Your task to perform on an android device: open app "VLC for Android" (install if not already installed) Image 0: 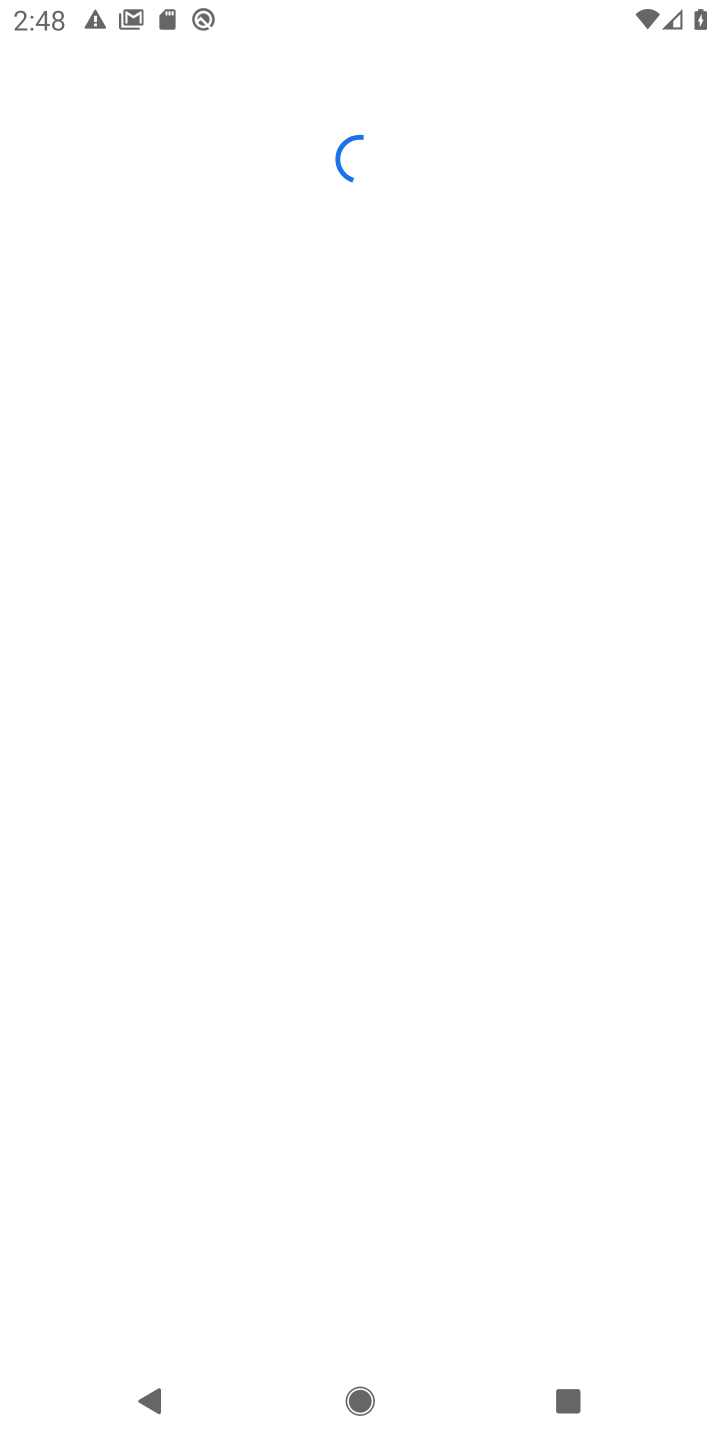
Step 0: press home button
Your task to perform on an android device: open app "VLC for Android" (install if not already installed) Image 1: 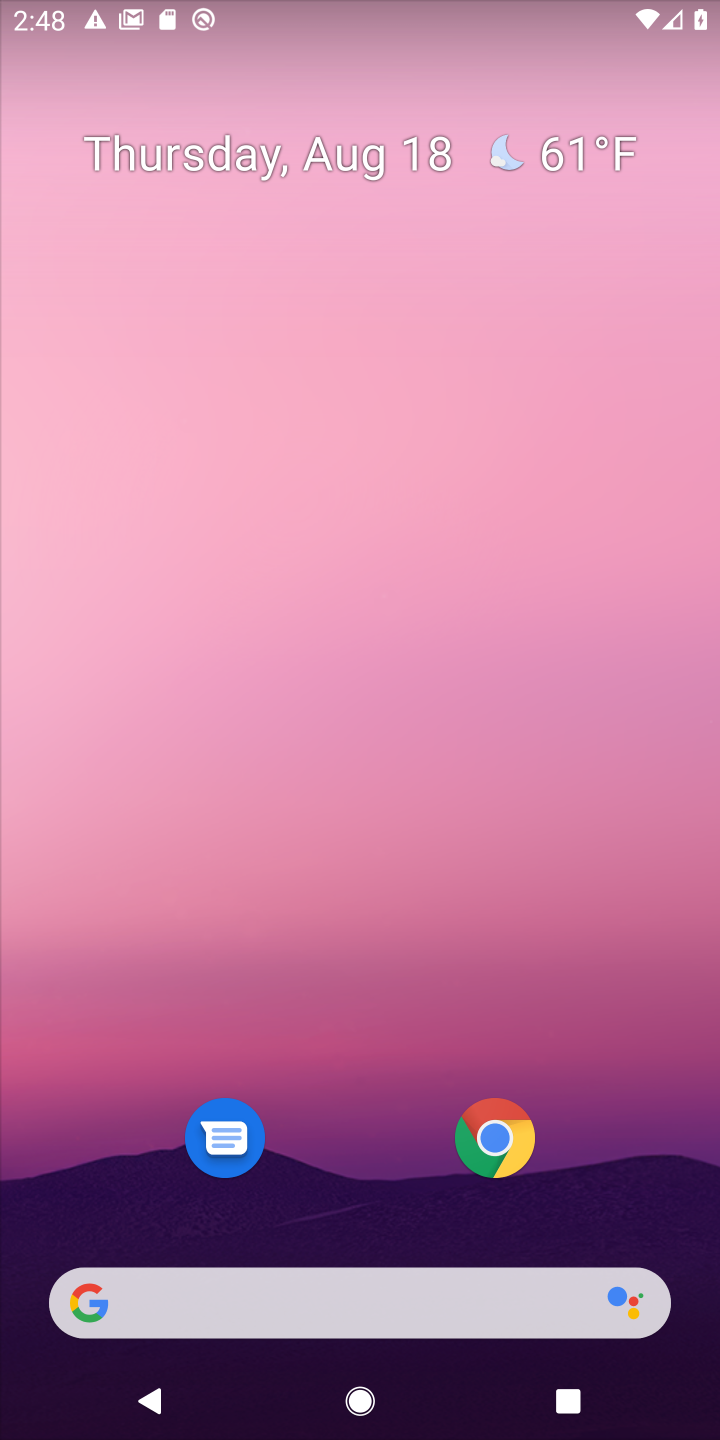
Step 1: drag from (357, 803) to (491, 11)
Your task to perform on an android device: open app "VLC for Android" (install if not already installed) Image 2: 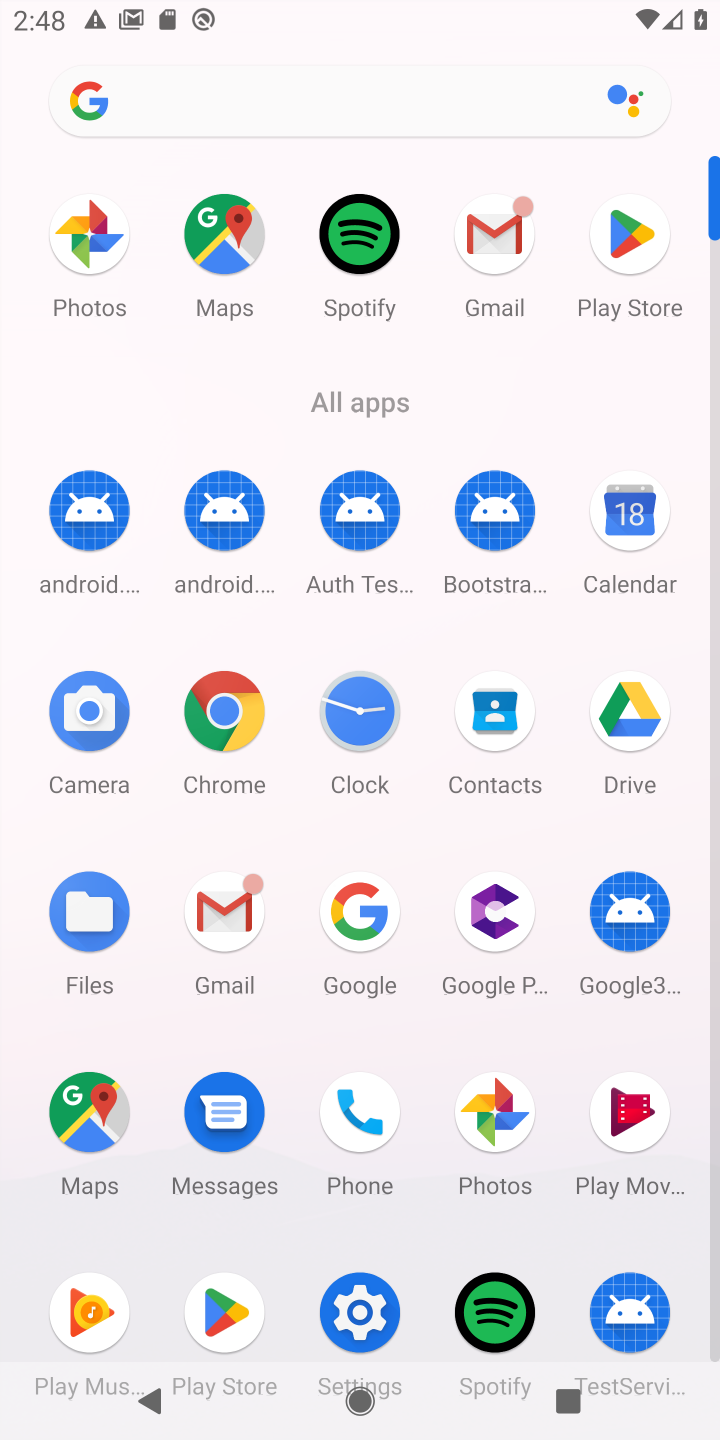
Step 2: click (624, 259)
Your task to perform on an android device: open app "VLC for Android" (install if not already installed) Image 3: 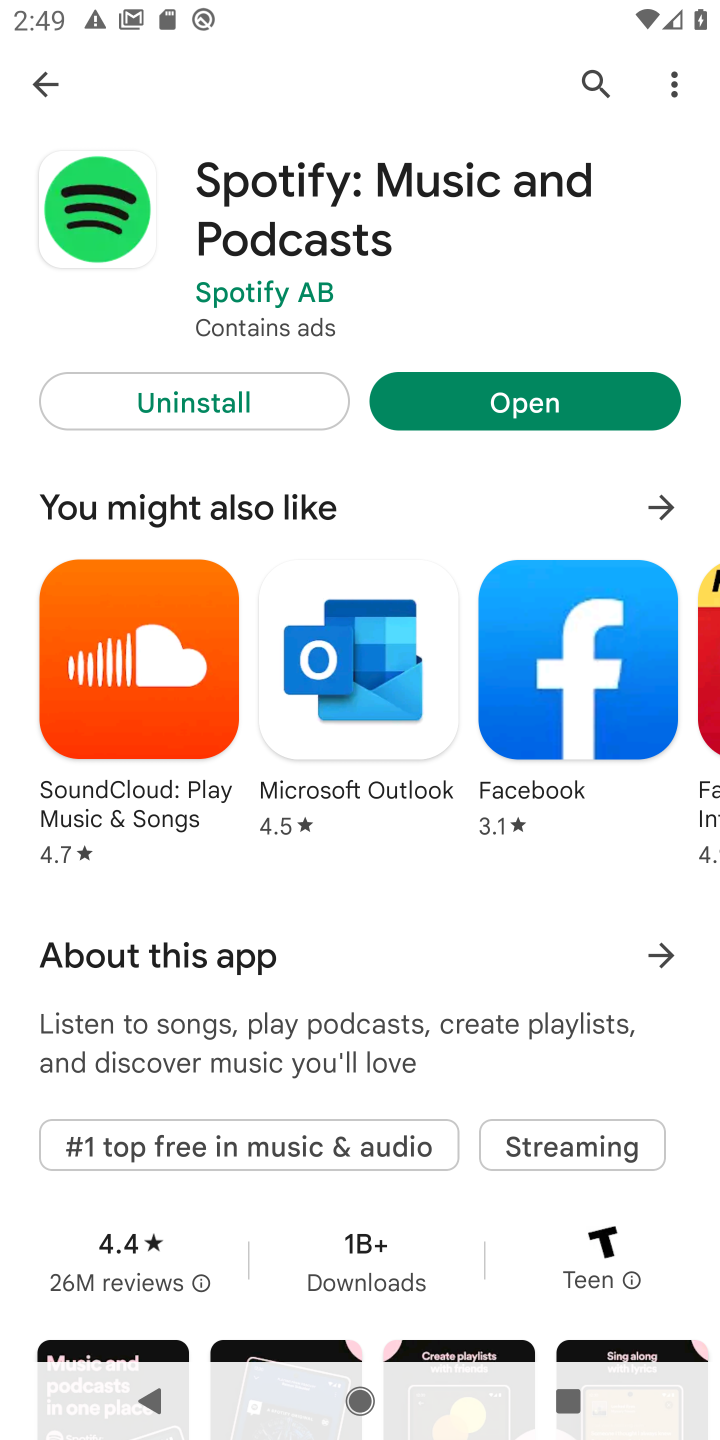
Step 3: click (55, 65)
Your task to perform on an android device: open app "VLC for Android" (install if not already installed) Image 4: 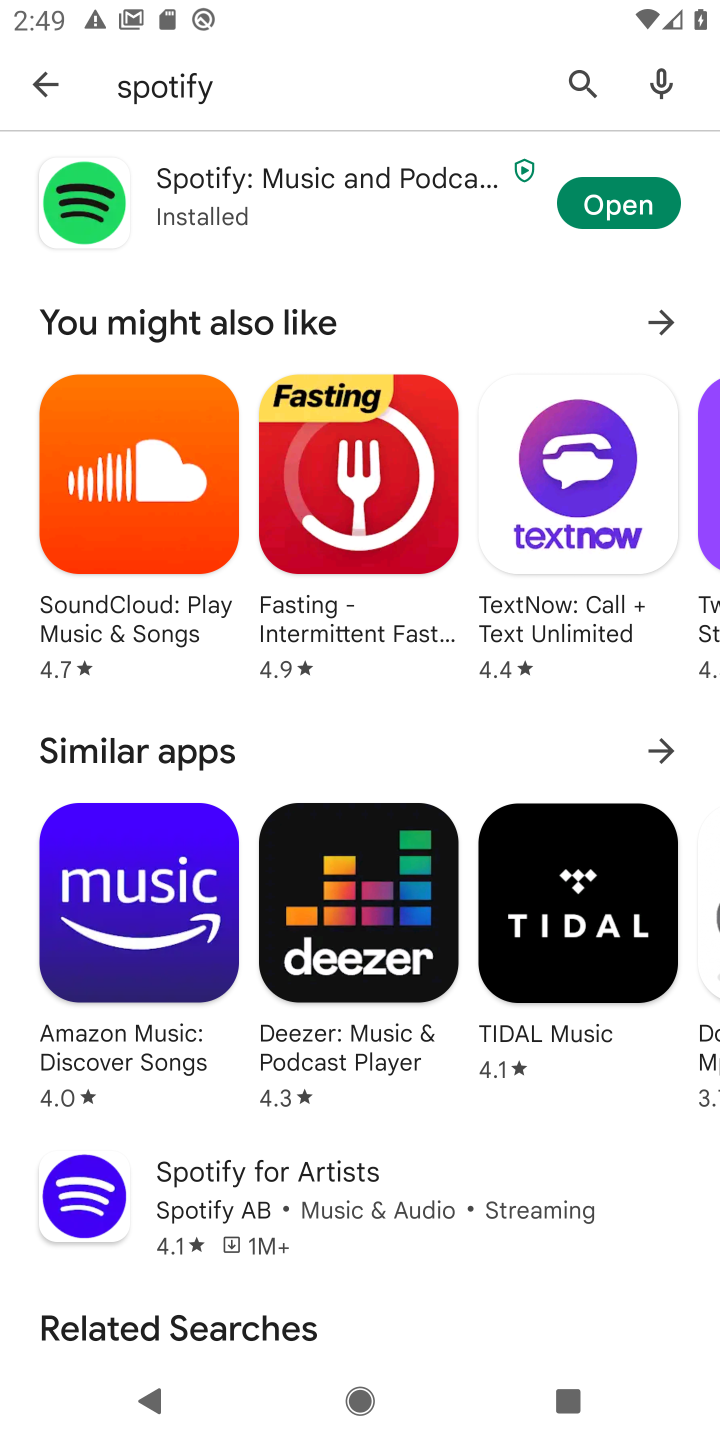
Step 4: click (278, 91)
Your task to perform on an android device: open app "VLC for Android" (install if not already installed) Image 5: 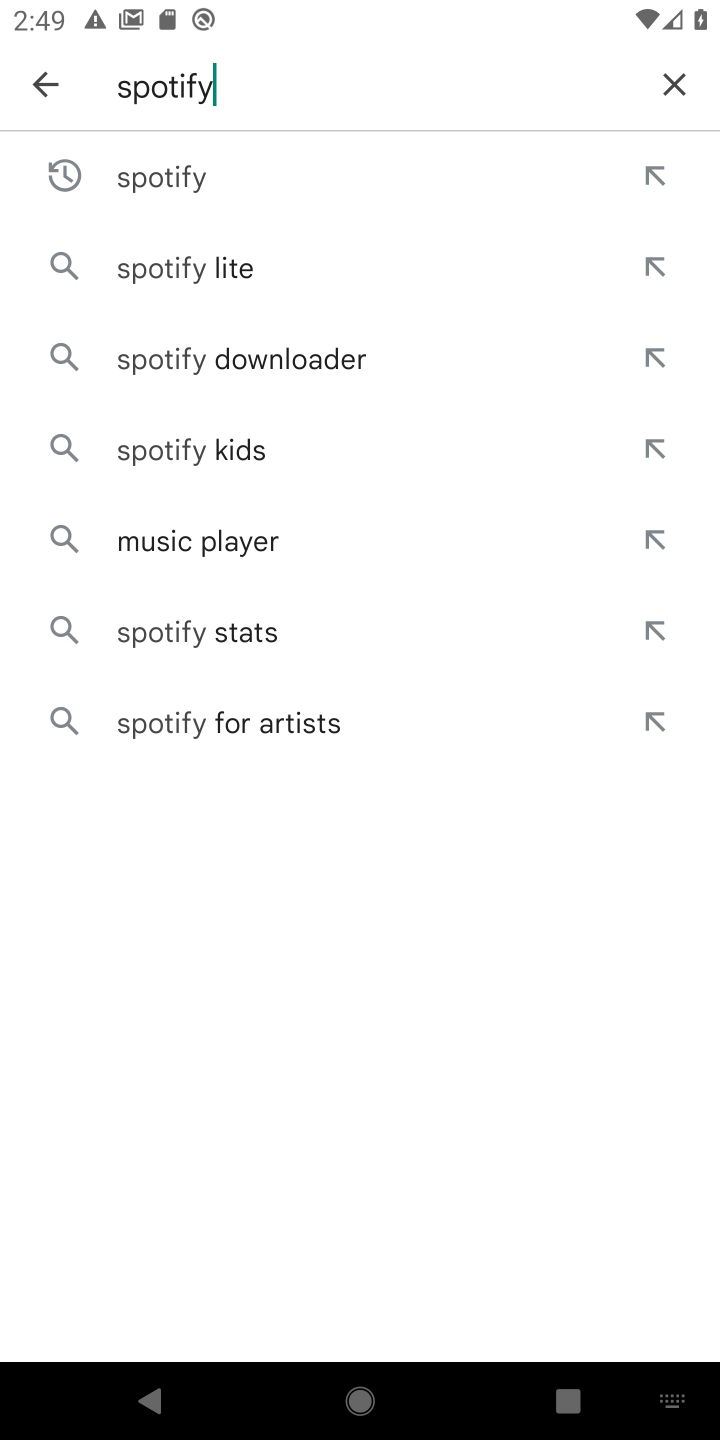
Step 5: click (660, 65)
Your task to perform on an android device: open app "VLC for Android" (install if not already installed) Image 6: 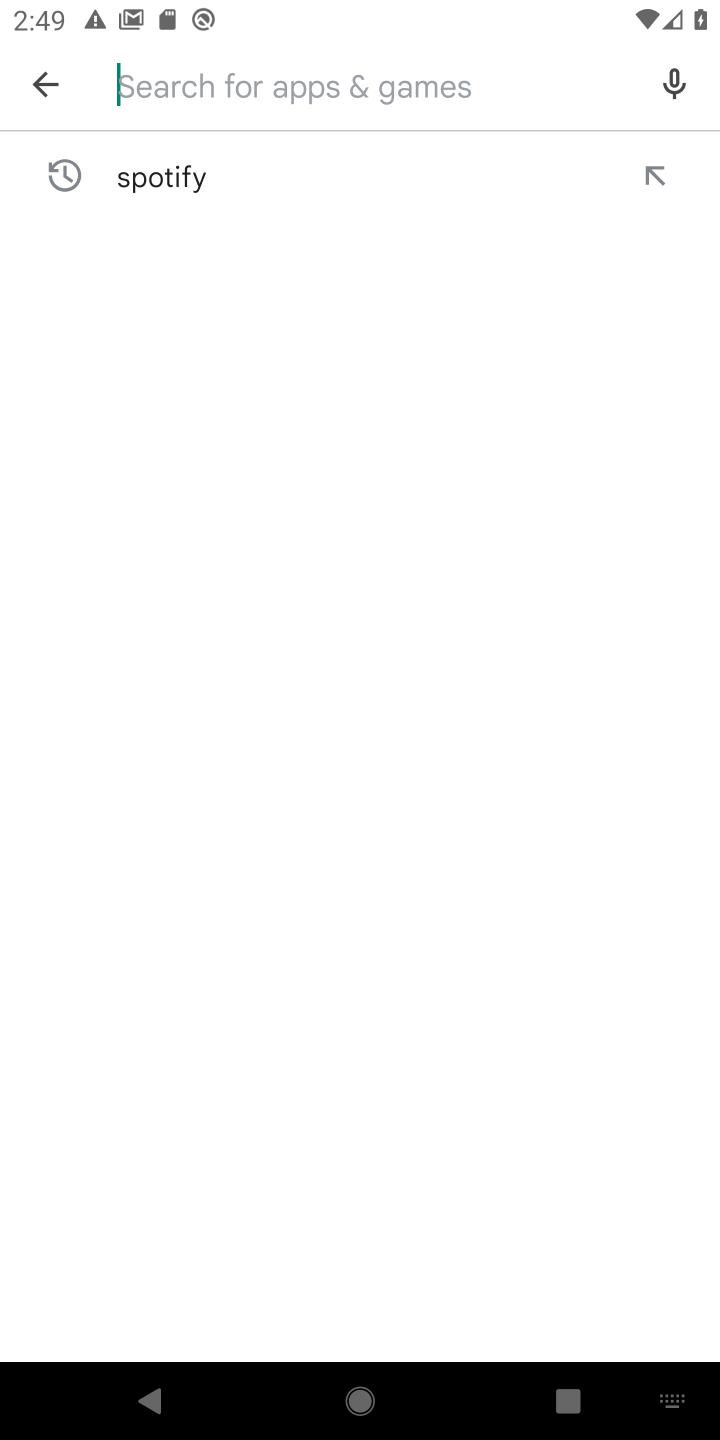
Step 6: type "Vlc"
Your task to perform on an android device: open app "VLC for Android" (install if not already installed) Image 7: 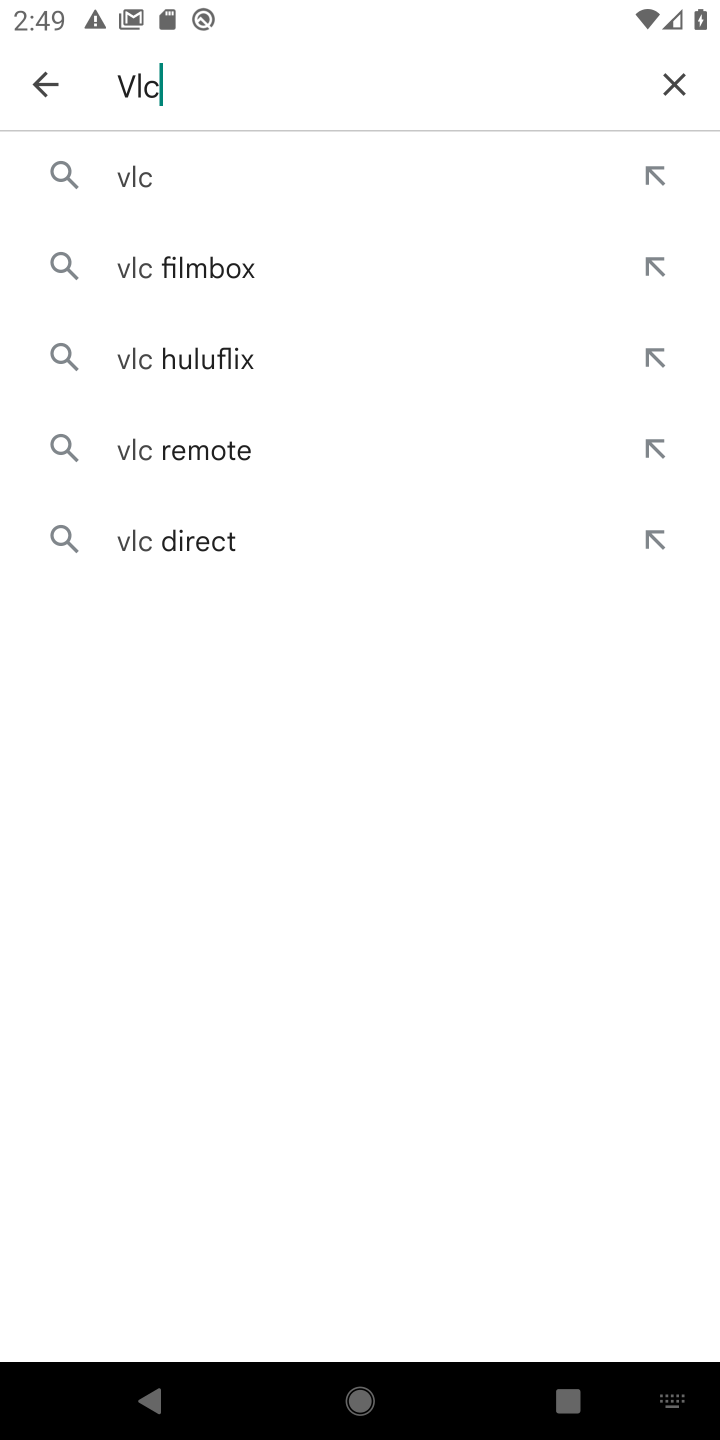
Step 7: click (171, 179)
Your task to perform on an android device: open app "VLC for Android" (install if not already installed) Image 8: 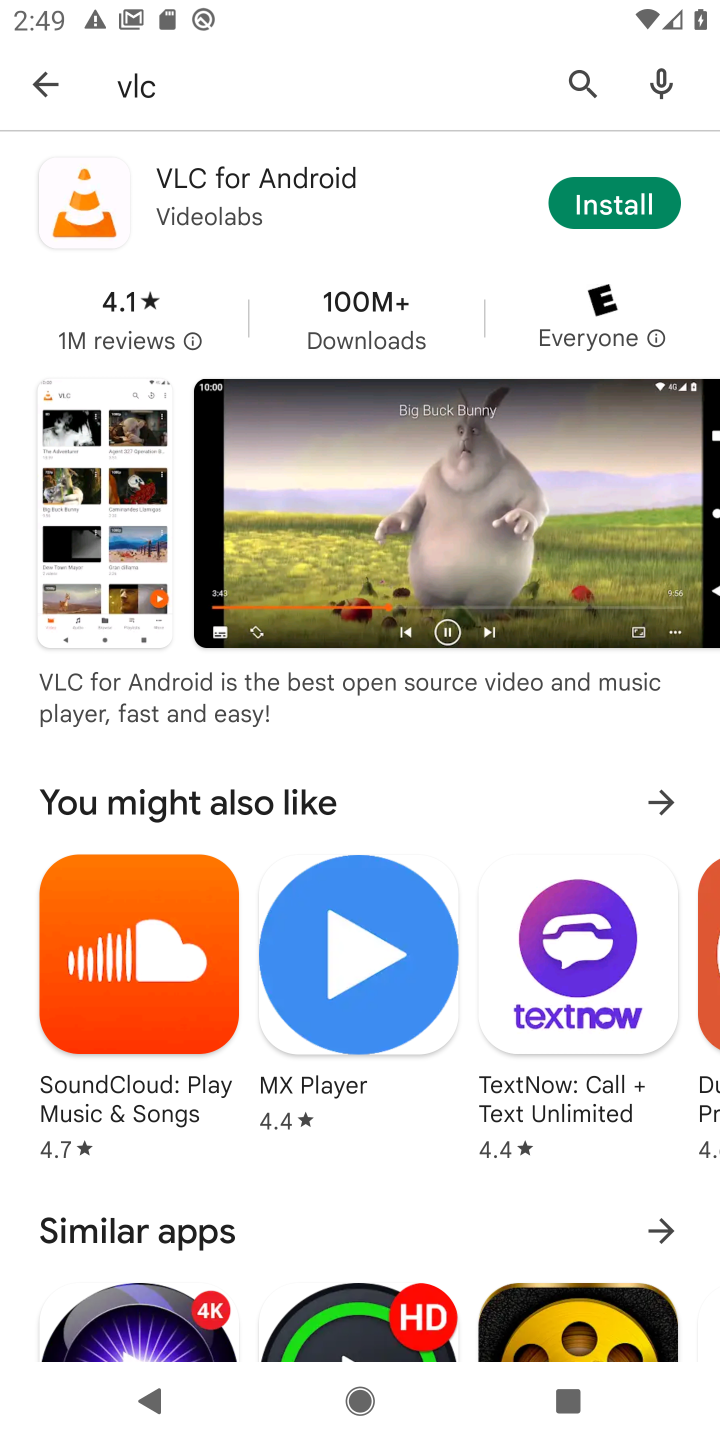
Step 8: click (595, 206)
Your task to perform on an android device: open app "VLC for Android" (install if not already installed) Image 9: 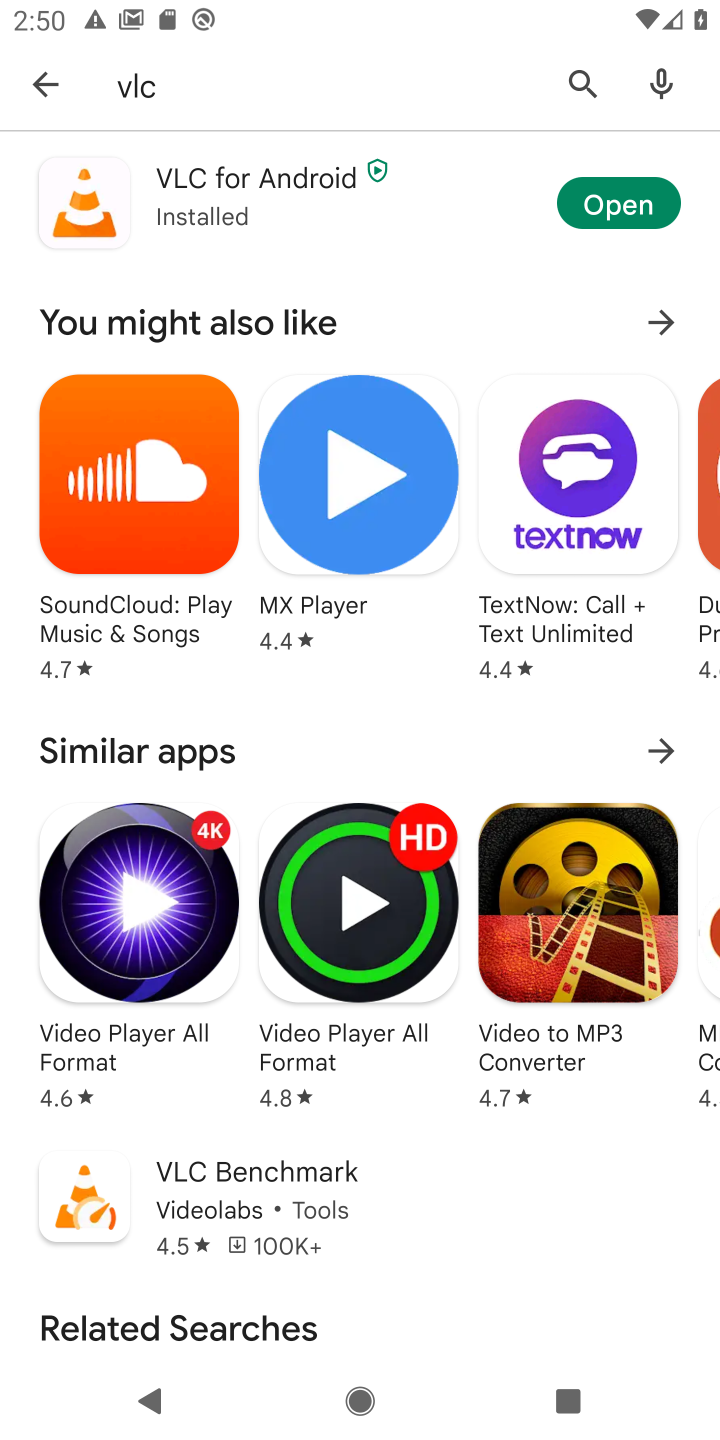
Step 9: click (597, 204)
Your task to perform on an android device: open app "VLC for Android" (install if not already installed) Image 10: 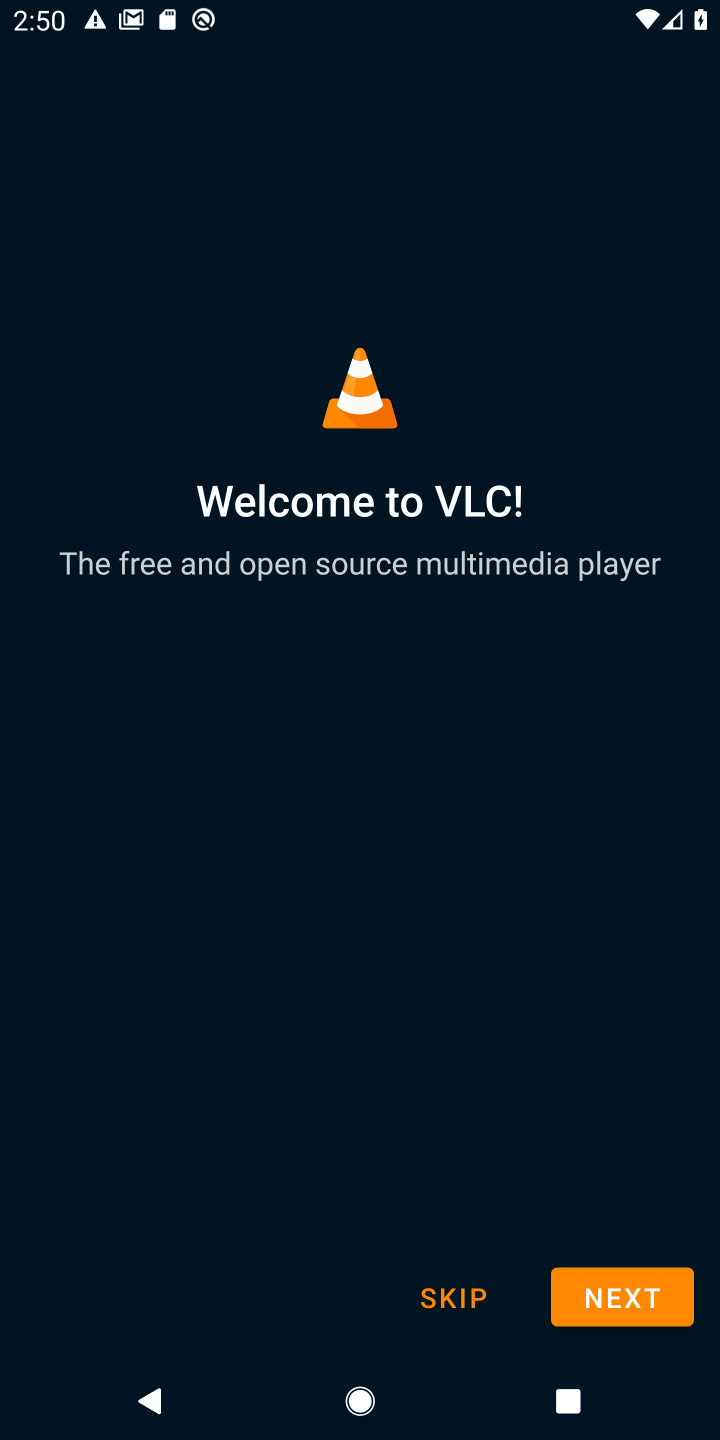
Step 10: click (461, 1286)
Your task to perform on an android device: open app "VLC for Android" (install if not already installed) Image 11: 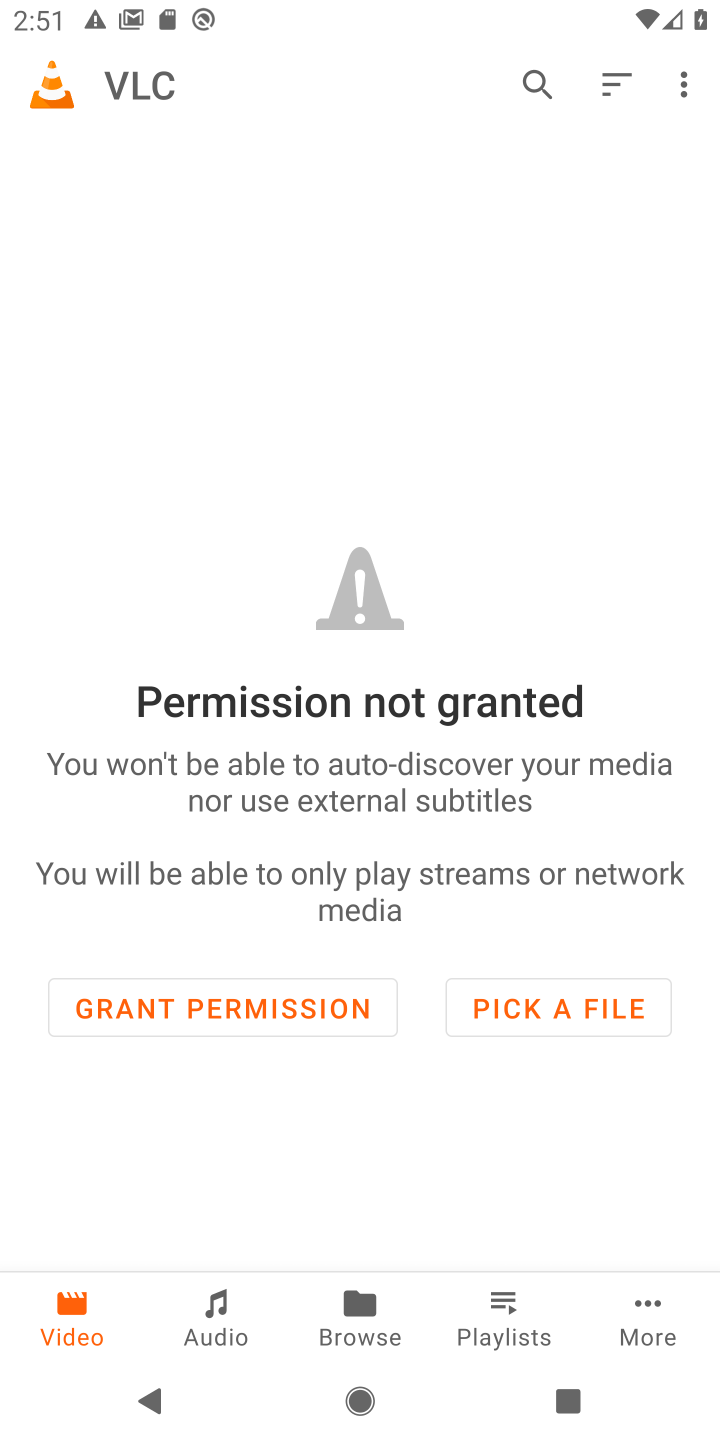
Step 11: task complete